Your task to perform on an android device: set an alarm Image 0: 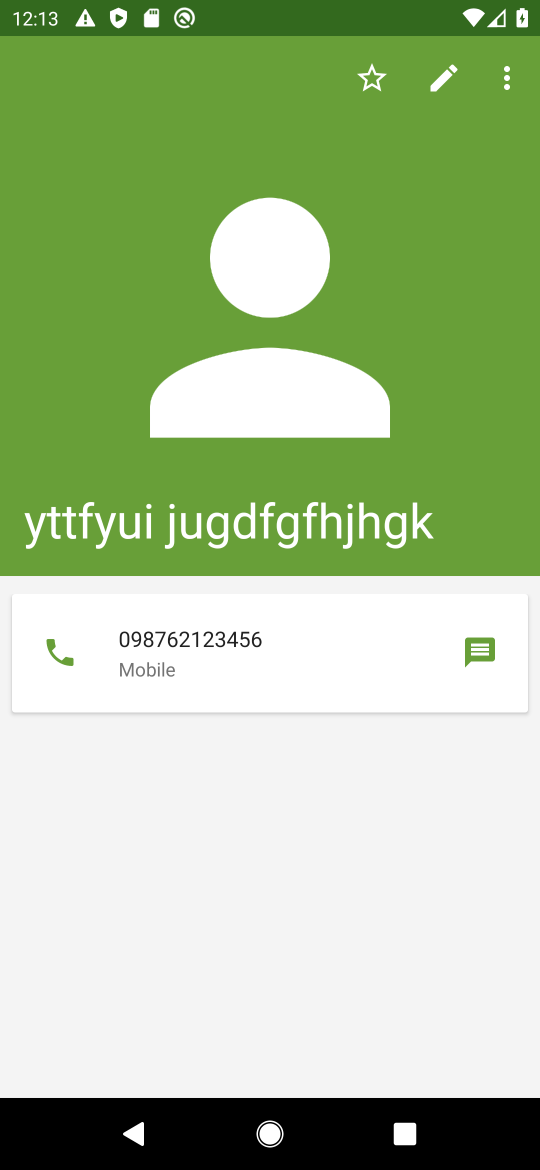
Step 0: press home button
Your task to perform on an android device: set an alarm Image 1: 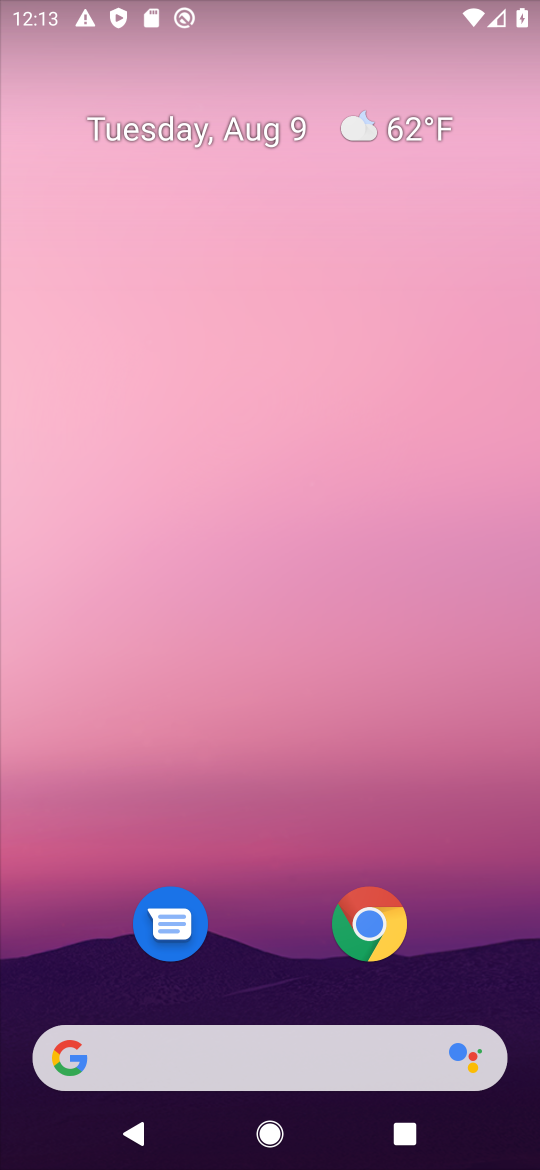
Step 1: drag from (283, 970) to (275, 151)
Your task to perform on an android device: set an alarm Image 2: 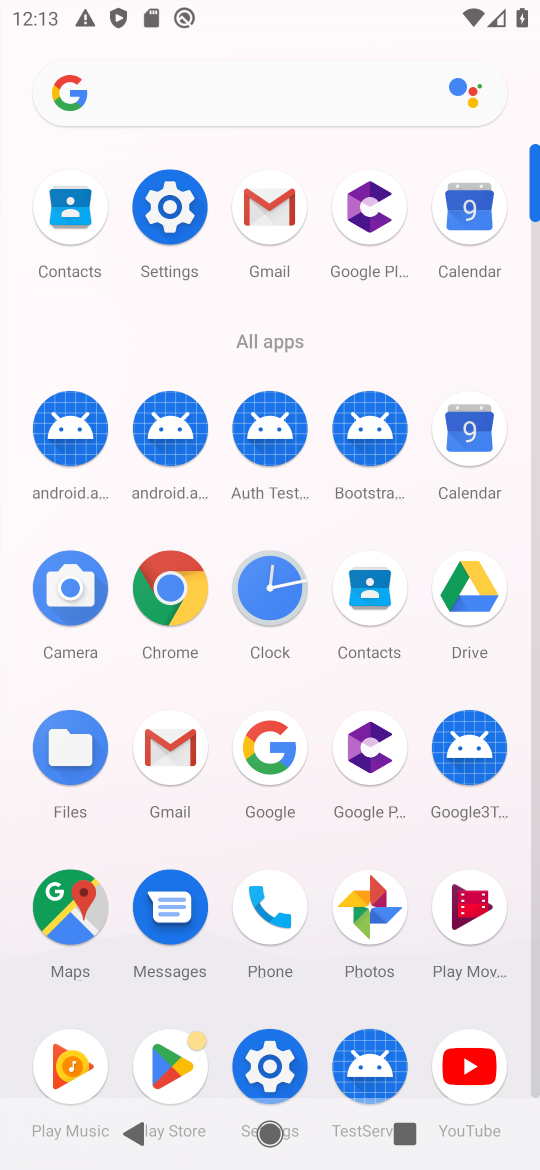
Step 2: click (287, 630)
Your task to perform on an android device: set an alarm Image 3: 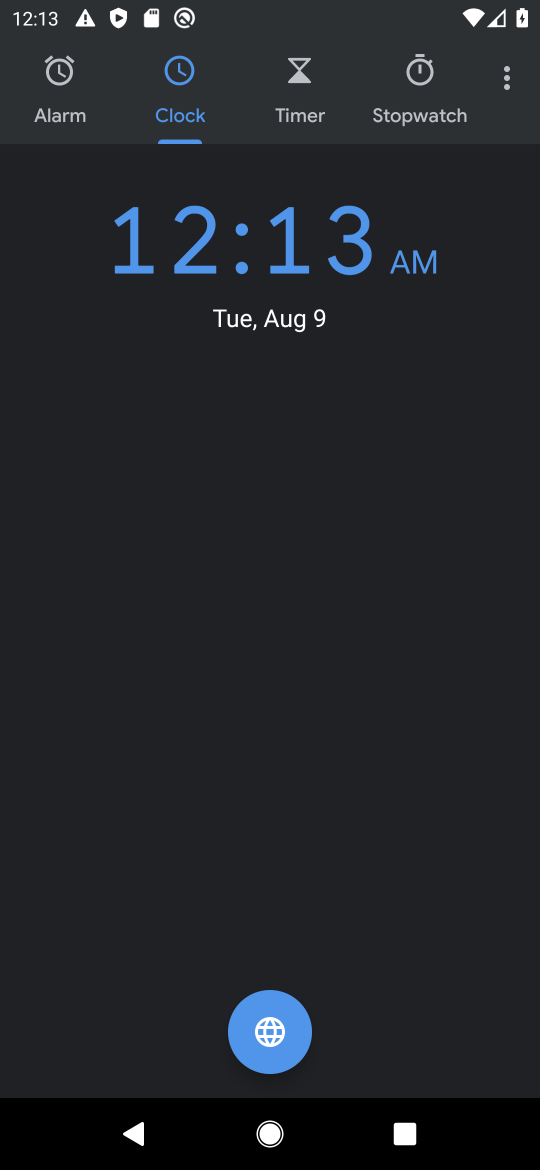
Step 3: click (63, 90)
Your task to perform on an android device: set an alarm Image 4: 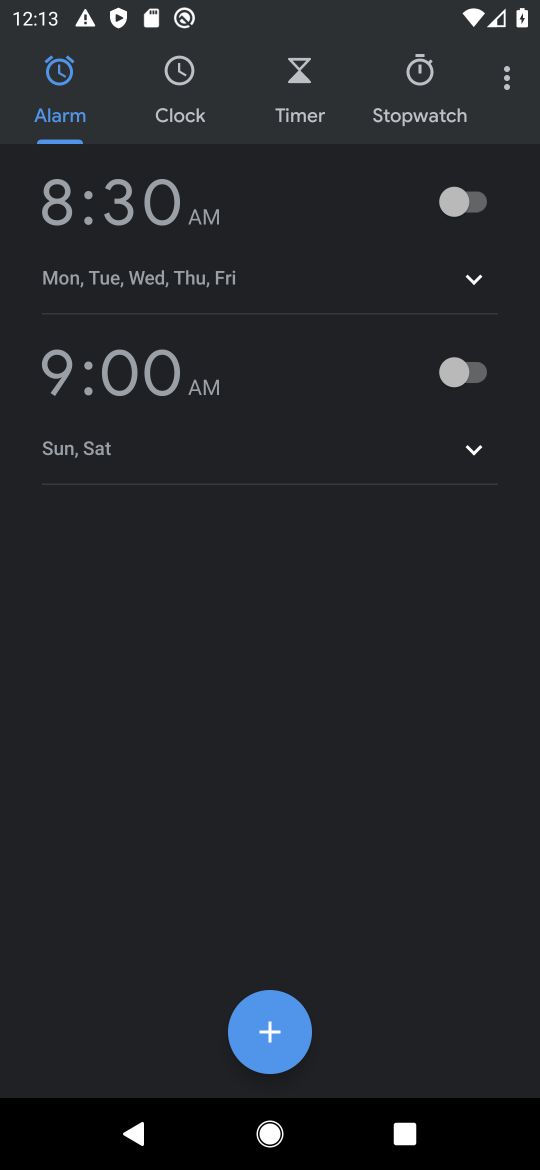
Step 4: click (446, 198)
Your task to perform on an android device: set an alarm Image 5: 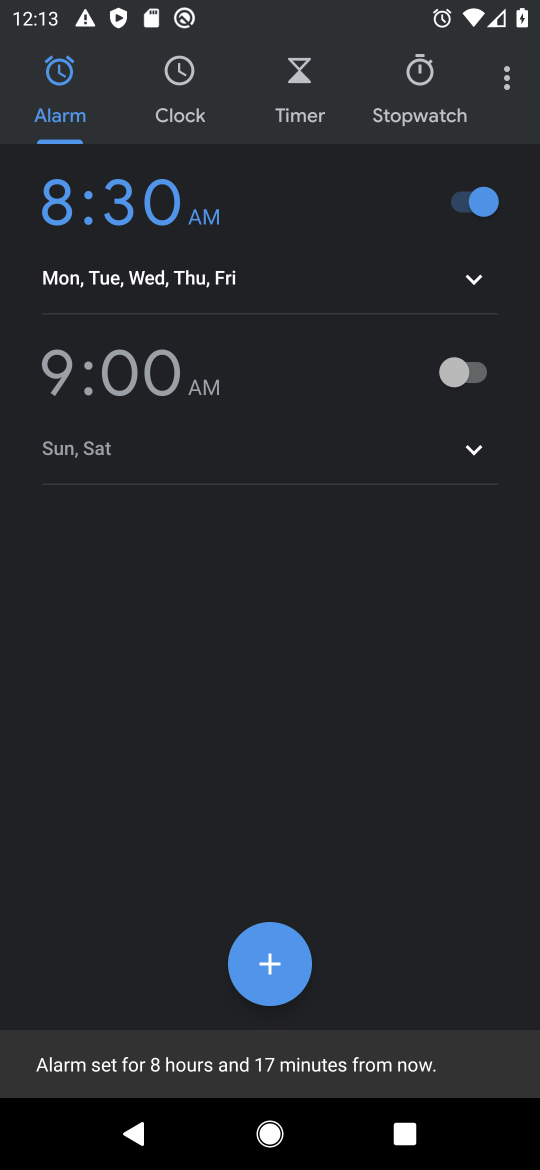
Step 5: task complete